Your task to perform on an android device: Open Google Image 0: 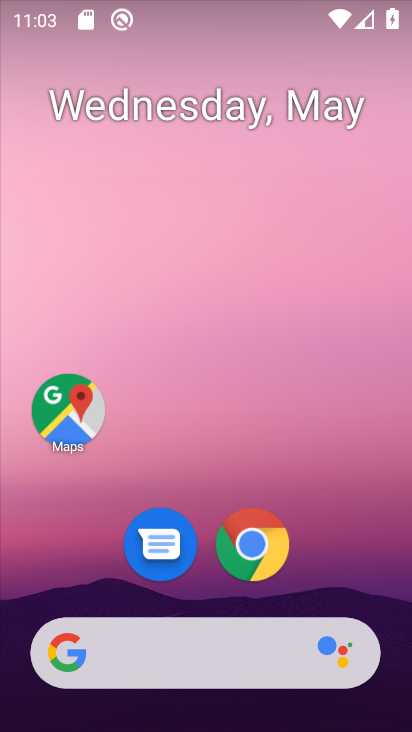
Step 0: drag from (329, 551) to (106, 206)
Your task to perform on an android device: Open Google Image 1: 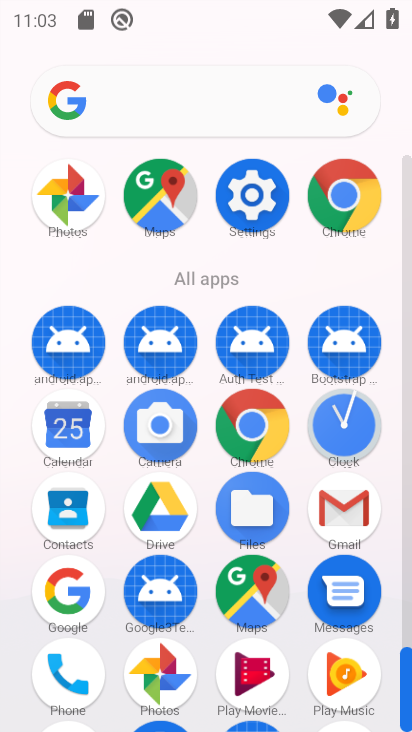
Step 1: click (78, 610)
Your task to perform on an android device: Open Google Image 2: 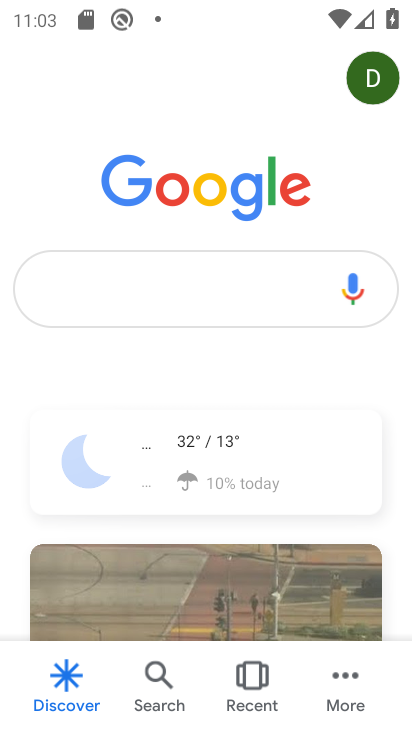
Step 2: task complete